Your task to perform on an android device: turn off location history Image 0: 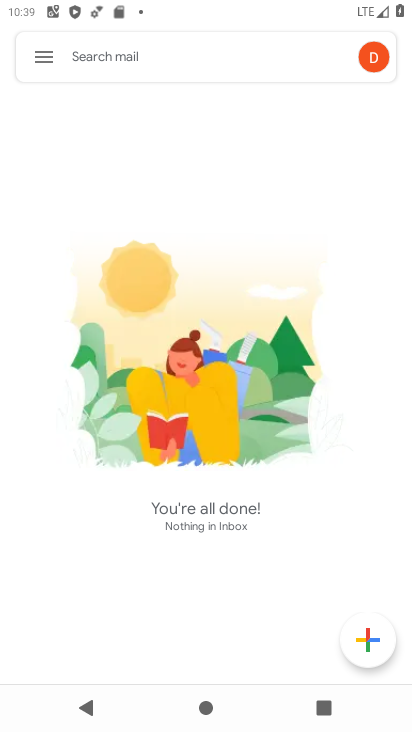
Step 0: press home button
Your task to perform on an android device: turn off location history Image 1: 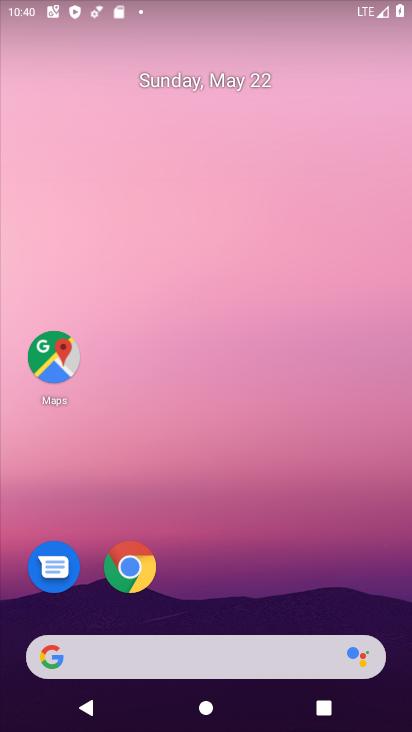
Step 1: click (53, 355)
Your task to perform on an android device: turn off location history Image 2: 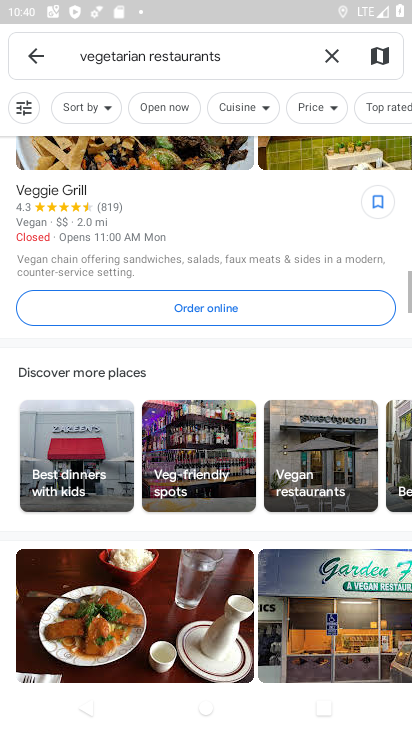
Step 2: click (331, 52)
Your task to perform on an android device: turn off location history Image 3: 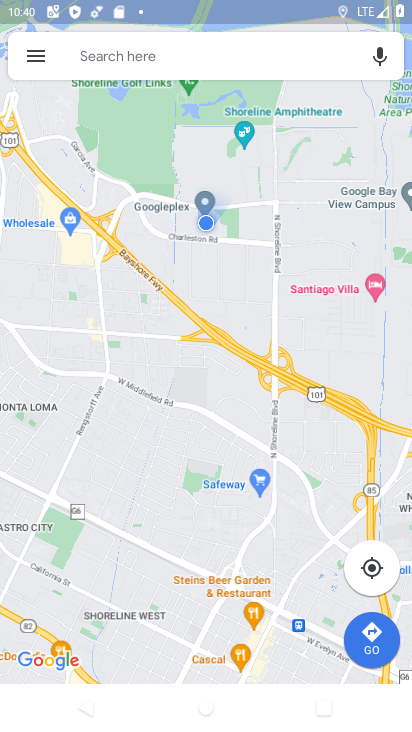
Step 3: click (38, 58)
Your task to perform on an android device: turn off location history Image 4: 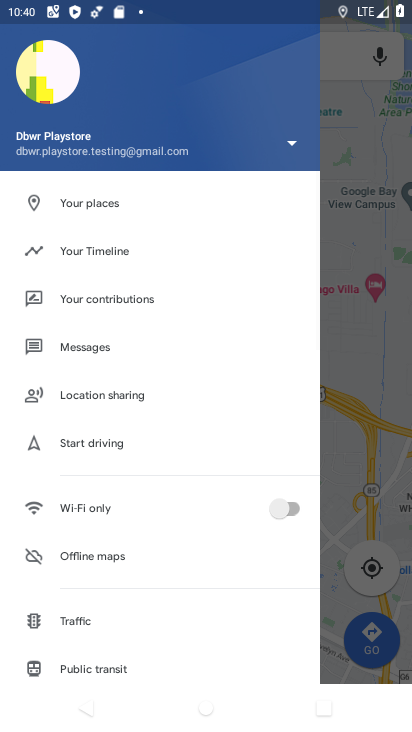
Step 4: drag from (174, 588) to (192, 193)
Your task to perform on an android device: turn off location history Image 5: 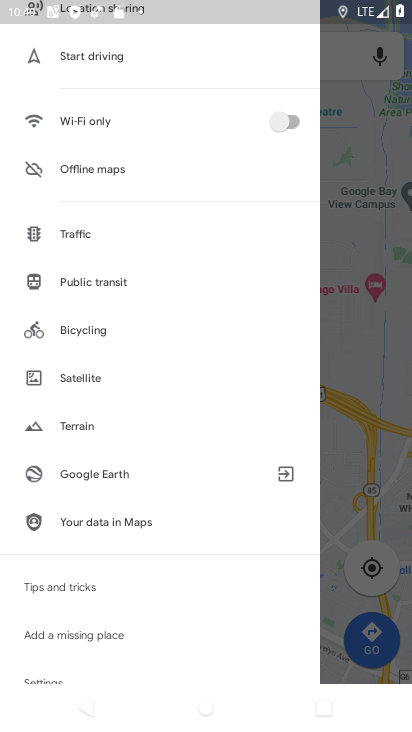
Step 5: drag from (80, 628) to (142, 290)
Your task to perform on an android device: turn off location history Image 6: 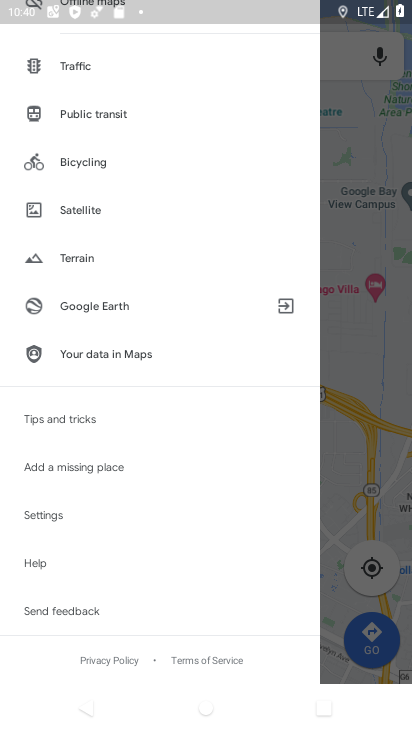
Step 6: click (40, 511)
Your task to perform on an android device: turn off location history Image 7: 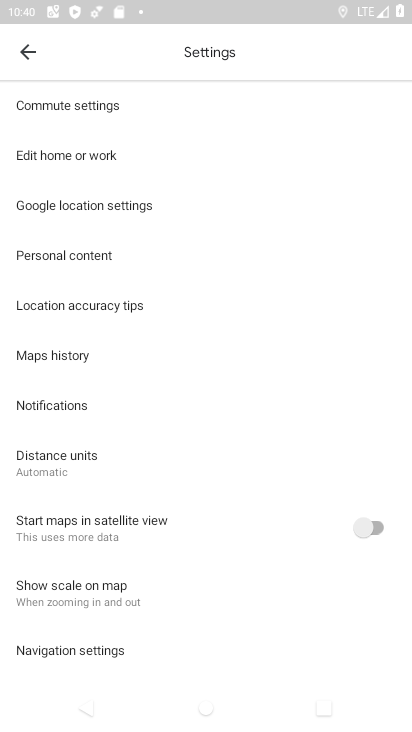
Step 7: click (63, 250)
Your task to perform on an android device: turn off location history Image 8: 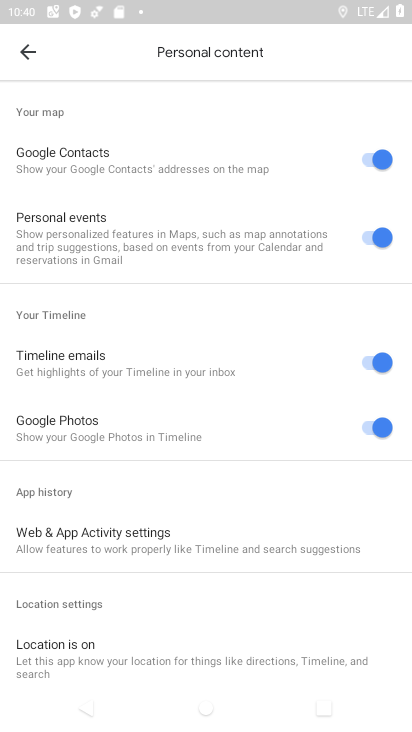
Step 8: task complete